Your task to perform on an android device: Add "sony triple a" to the cart on costco, then select checkout. Image 0: 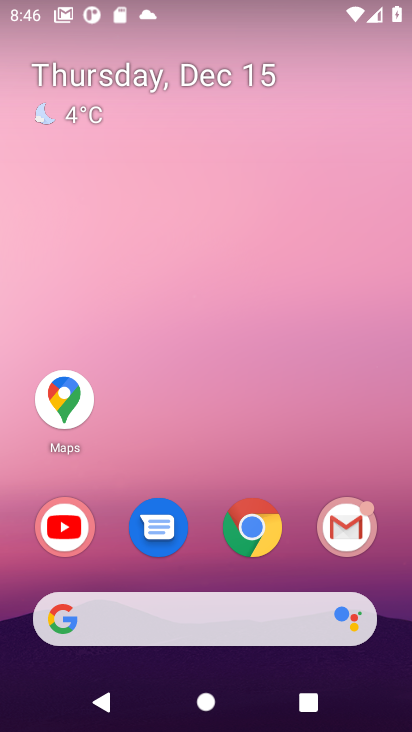
Step 0: click (236, 522)
Your task to perform on an android device: Add "sony triple a" to the cart on costco, then select checkout. Image 1: 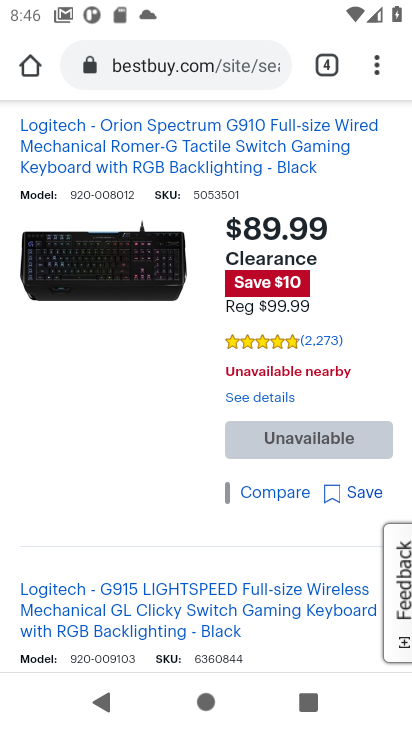
Step 1: click (152, 65)
Your task to perform on an android device: Add "sony triple a" to the cart on costco, then select checkout. Image 2: 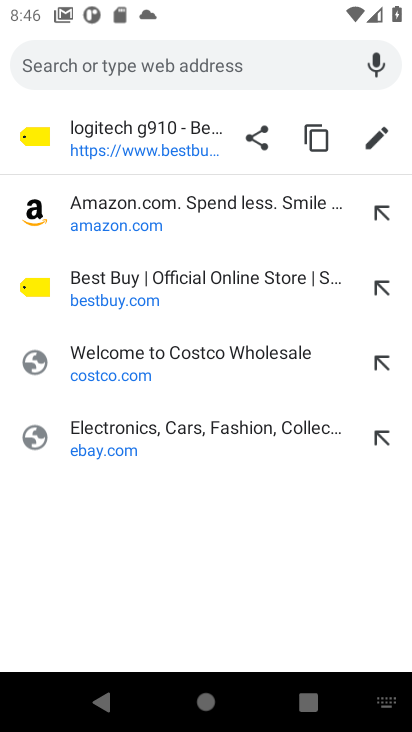
Step 2: type "costco"
Your task to perform on an android device: Add "sony triple a" to the cart on costco, then select checkout. Image 3: 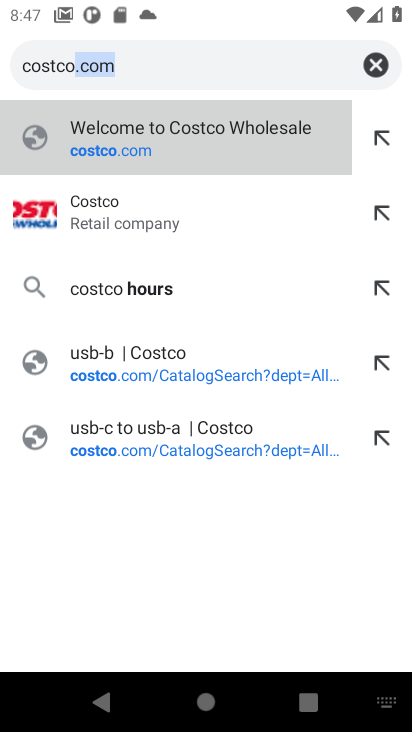
Step 3: click (118, 142)
Your task to perform on an android device: Add "sony triple a" to the cart on costco, then select checkout. Image 4: 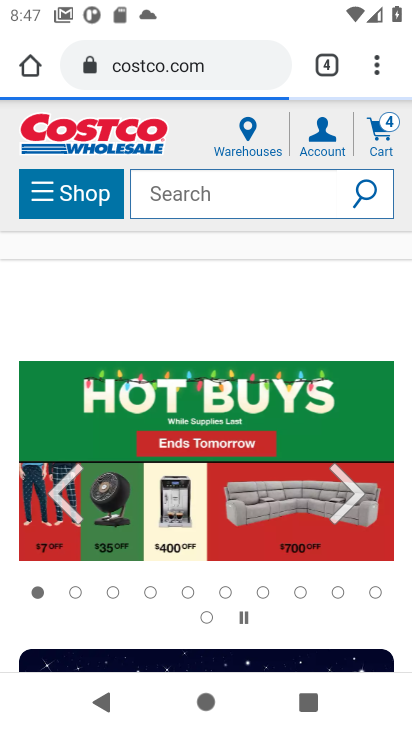
Step 4: click (225, 193)
Your task to perform on an android device: Add "sony triple a" to the cart on costco, then select checkout. Image 5: 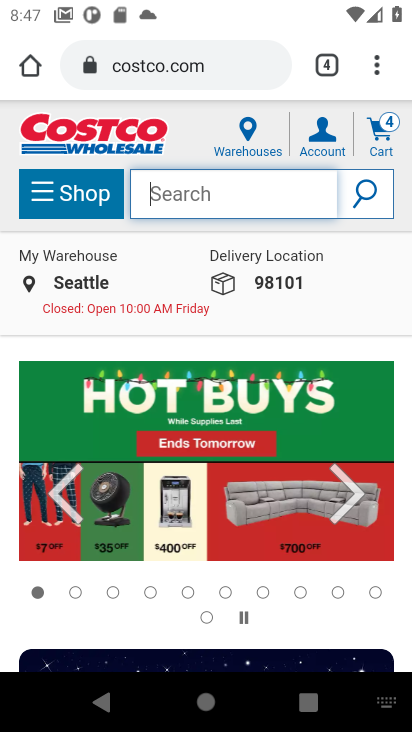
Step 5: type "sony triple a"
Your task to perform on an android device: Add "sony triple a" to the cart on costco, then select checkout. Image 6: 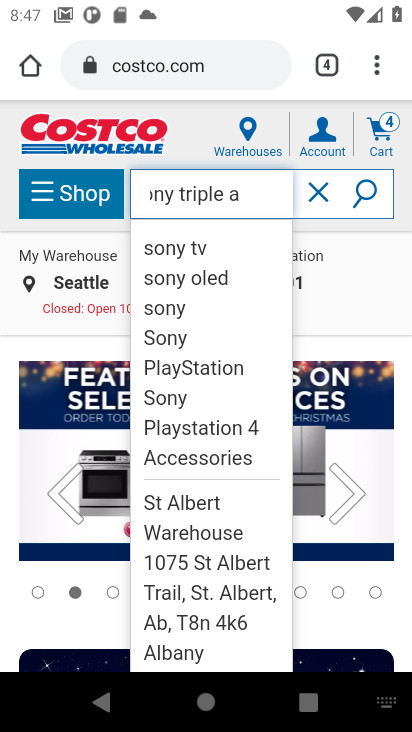
Step 6: click (372, 188)
Your task to perform on an android device: Add "sony triple a" to the cart on costco, then select checkout. Image 7: 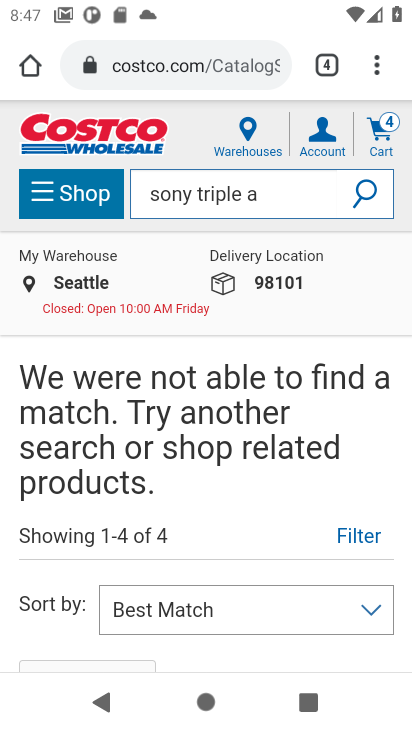
Step 7: task complete